Your task to perform on an android device: Go to Maps Image 0: 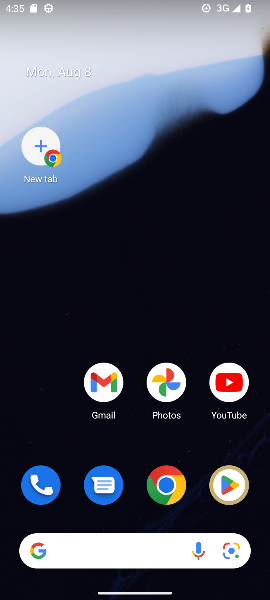
Step 0: drag from (99, 567) to (104, 206)
Your task to perform on an android device: Go to Maps Image 1: 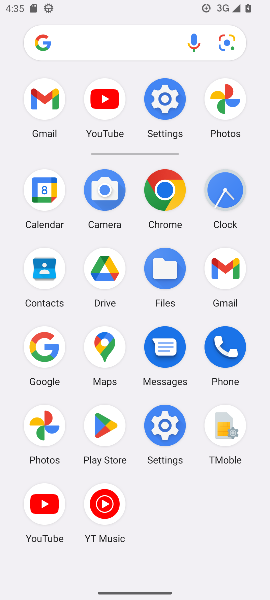
Step 1: click (102, 339)
Your task to perform on an android device: Go to Maps Image 2: 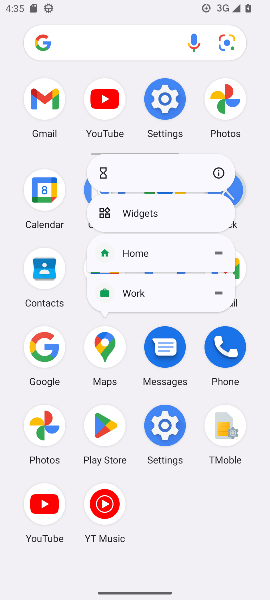
Step 2: click (102, 340)
Your task to perform on an android device: Go to Maps Image 3: 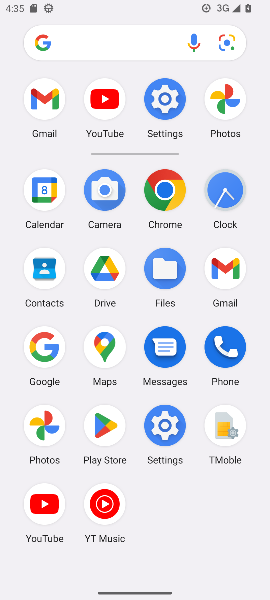
Step 3: click (105, 341)
Your task to perform on an android device: Go to Maps Image 4: 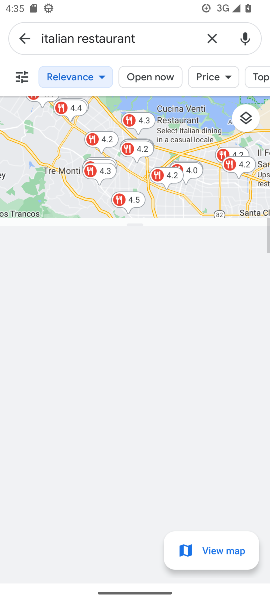
Step 4: click (106, 342)
Your task to perform on an android device: Go to Maps Image 5: 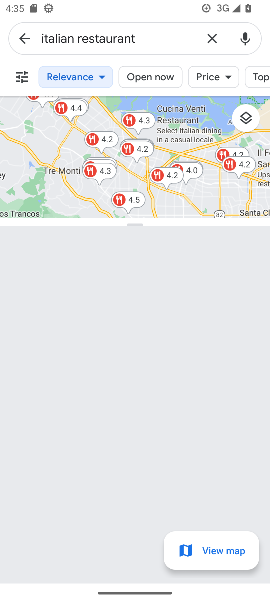
Step 5: task complete